Your task to perform on an android device: turn off notifications in google photos Image 0: 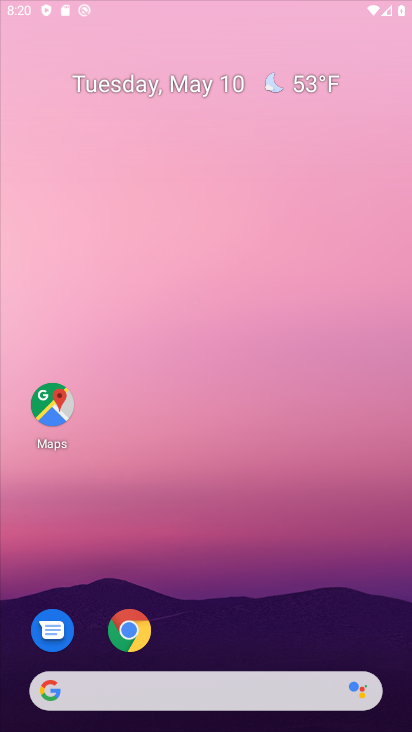
Step 0: click (277, 167)
Your task to perform on an android device: turn off notifications in google photos Image 1: 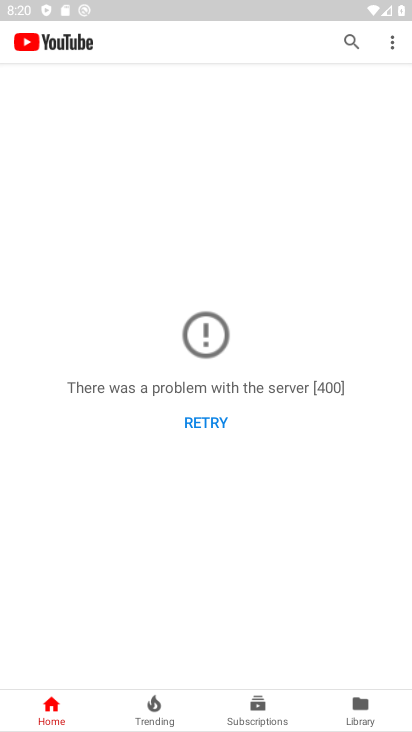
Step 1: press back button
Your task to perform on an android device: turn off notifications in google photos Image 2: 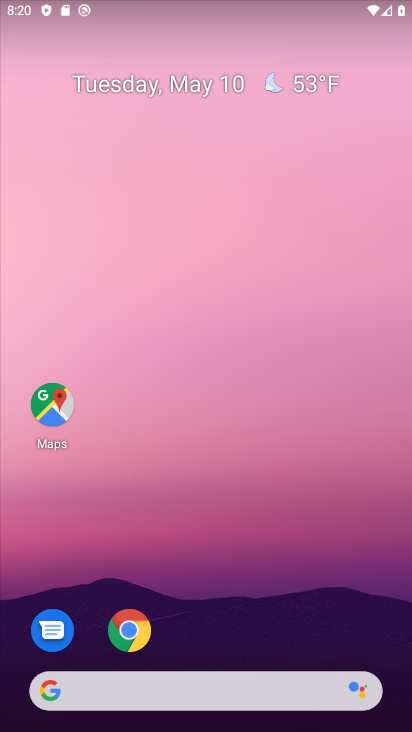
Step 2: drag from (195, 665) to (288, 146)
Your task to perform on an android device: turn off notifications in google photos Image 3: 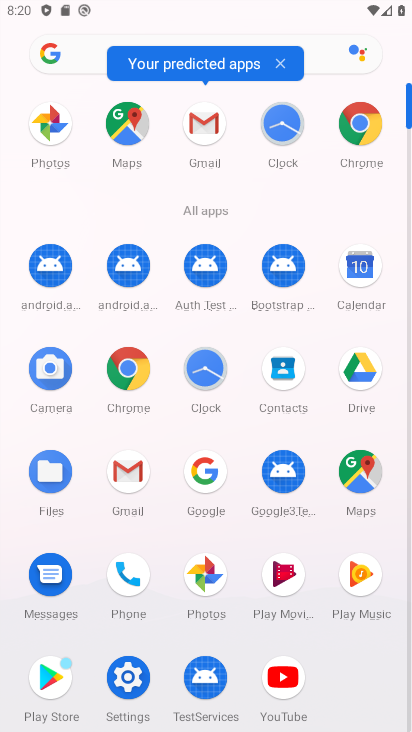
Step 3: drag from (204, 649) to (236, 434)
Your task to perform on an android device: turn off notifications in google photos Image 4: 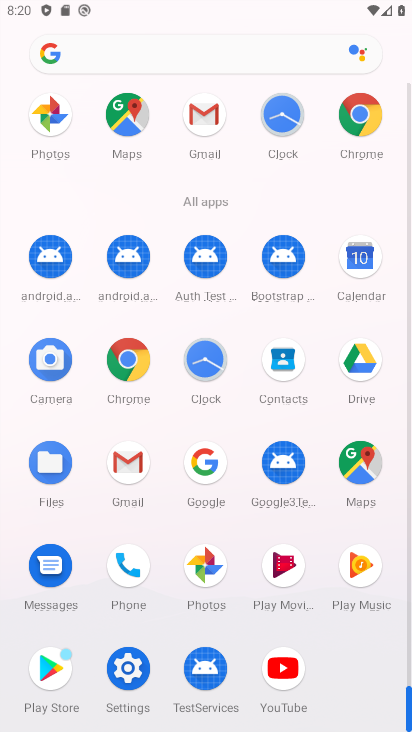
Step 4: click (214, 565)
Your task to perform on an android device: turn off notifications in google photos Image 5: 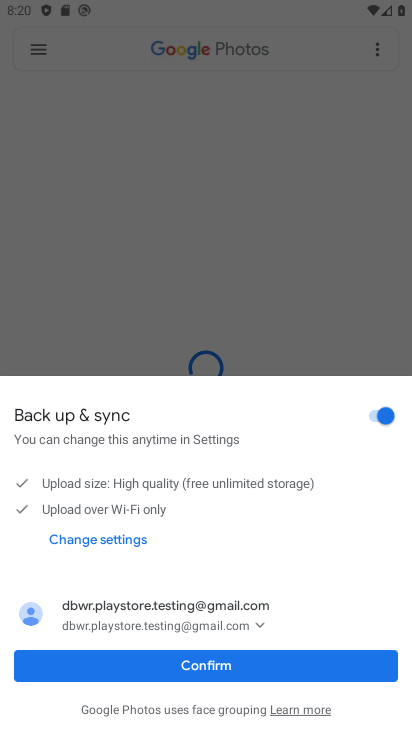
Step 5: click (239, 657)
Your task to perform on an android device: turn off notifications in google photos Image 6: 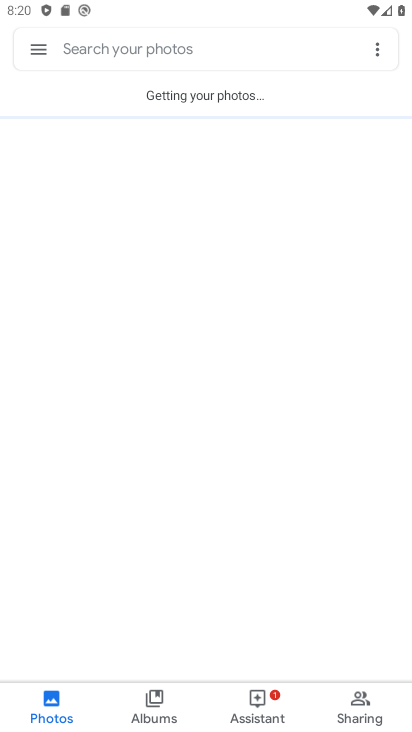
Step 6: click (39, 55)
Your task to perform on an android device: turn off notifications in google photos Image 7: 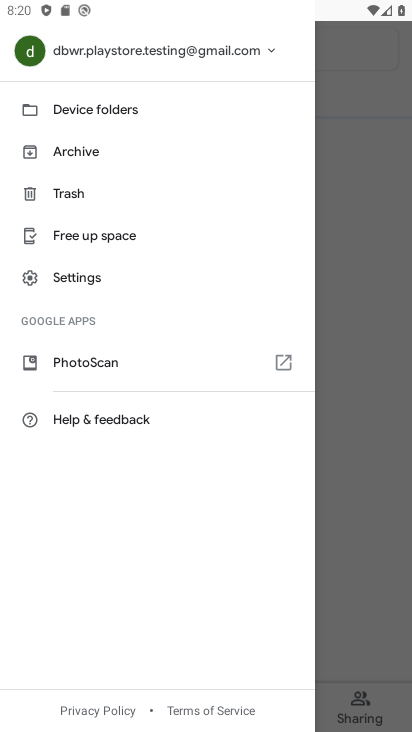
Step 7: click (141, 272)
Your task to perform on an android device: turn off notifications in google photos Image 8: 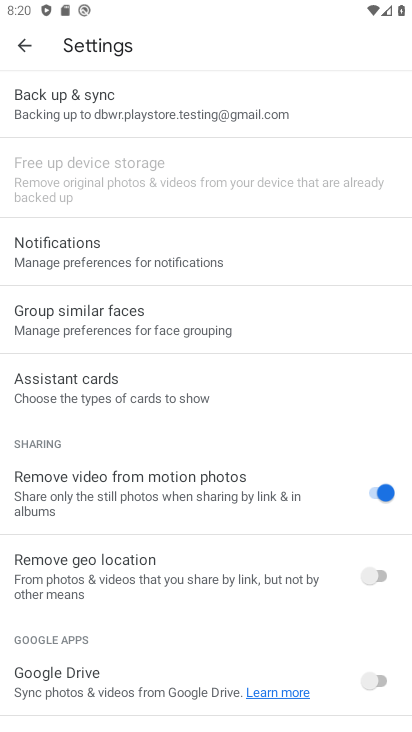
Step 8: drag from (144, 667) to (186, 727)
Your task to perform on an android device: turn off notifications in google photos Image 9: 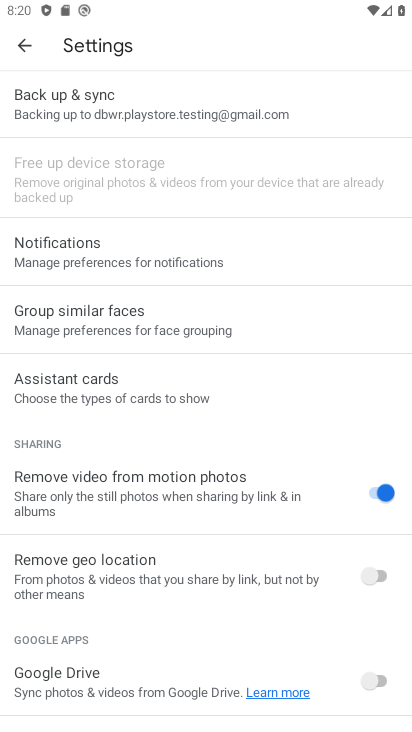
Step 9: click (146, 228)
Your task to perform on an android device: turn off notifications in google photos Image 10: 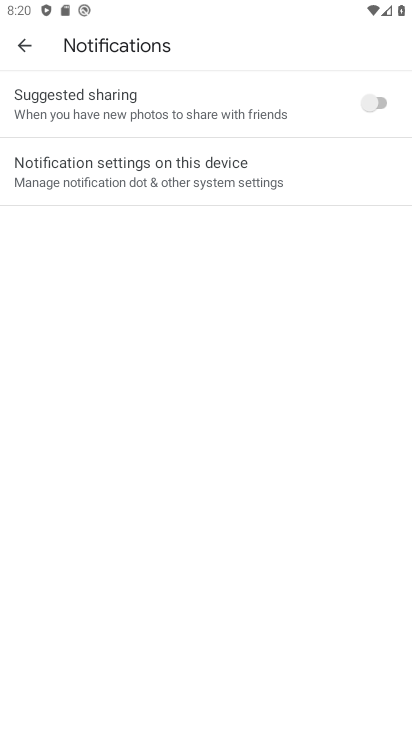
Step 10: click (182, 171)
Your task to perform on an android device: turn off notifications in google photos Image 11: 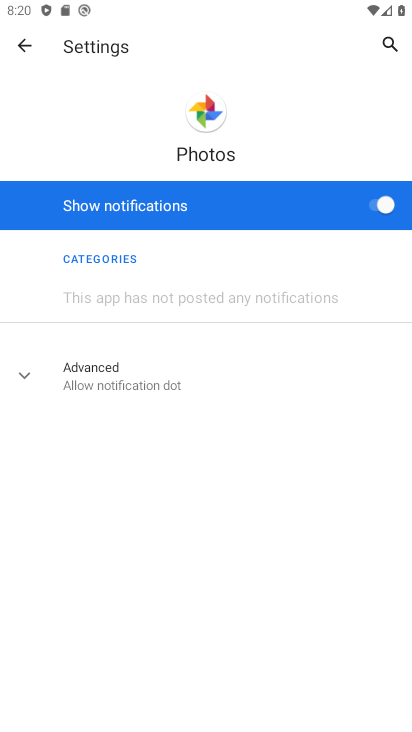
Step 11: click (385, 204)
Your task to perform on an android device: turn off notifications in google photos Image 12: 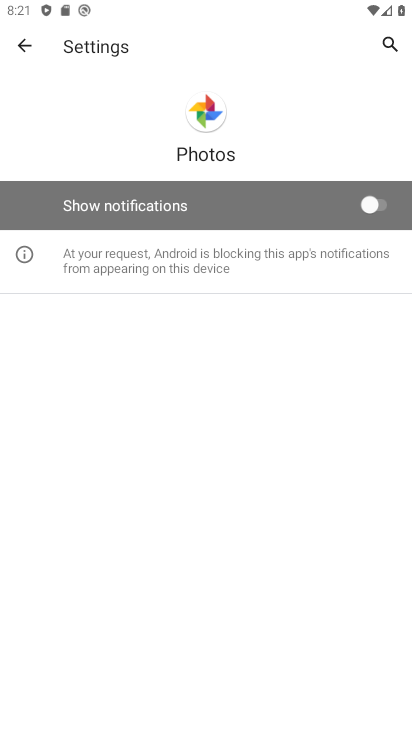
Step 12: task complete